Your task to perform on an android device: turn off improve location accuracy Image 0: 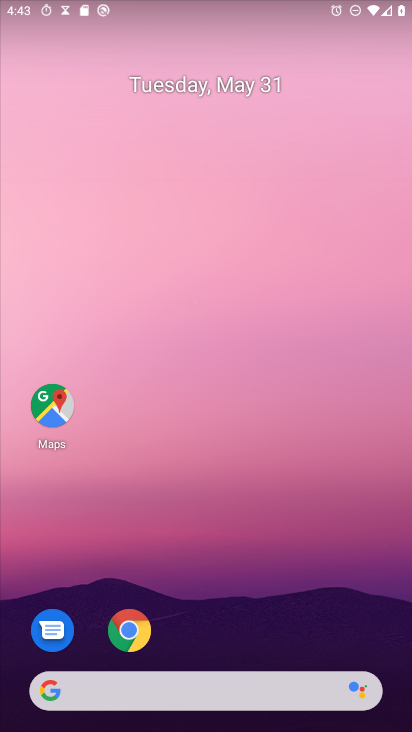
Step 0: drag from (294, 617) to (354, 3)
Your task to perform on an android device: turn off improve location accuracy Image 1: 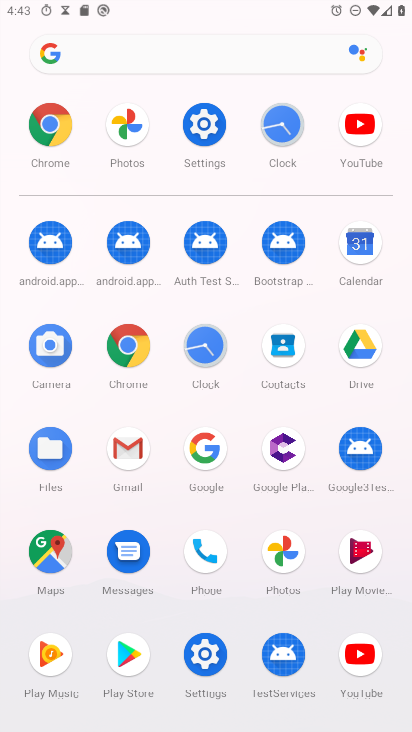
Step 1: click (205, 141)
Your task to perform on an android device: turn off improve location accuracy Image 2: 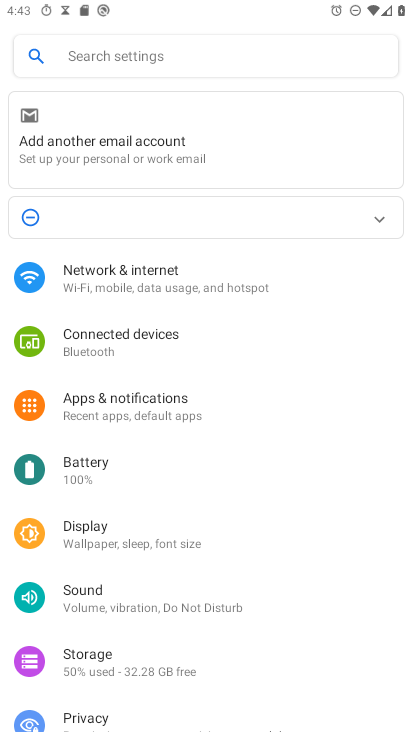
Step 2: drag from (279, 677) to (264, 310)
Your task to perform on an android device: turn off improve location accuracy Image 3: 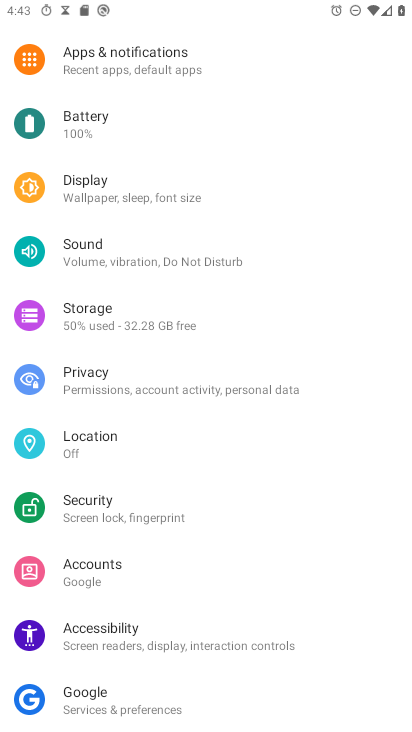
Step 3: click (129, 445)
Your task to perform on an android device: turn off improve location accuracy Image 4: 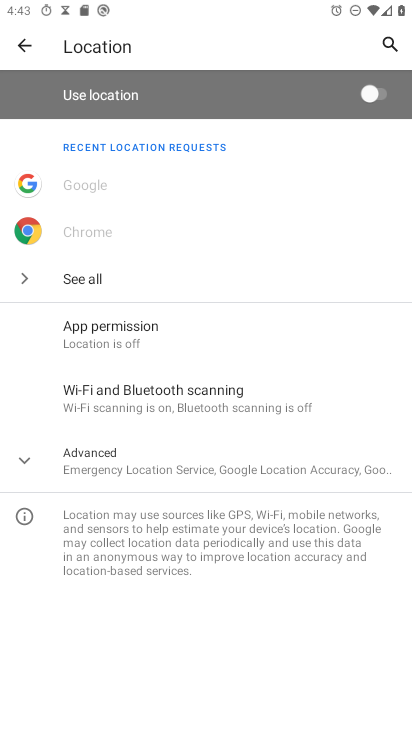
Step 4: click (236, 471)
Your task to perform on an android device: turn off improve location accuracy Image 5: 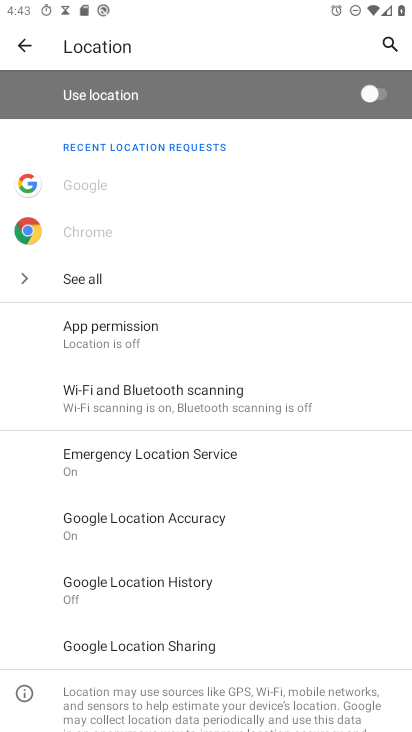
Step 5: click (222, 520)
Your task to perform on an android device: turn off improve location accuracy Image 6: 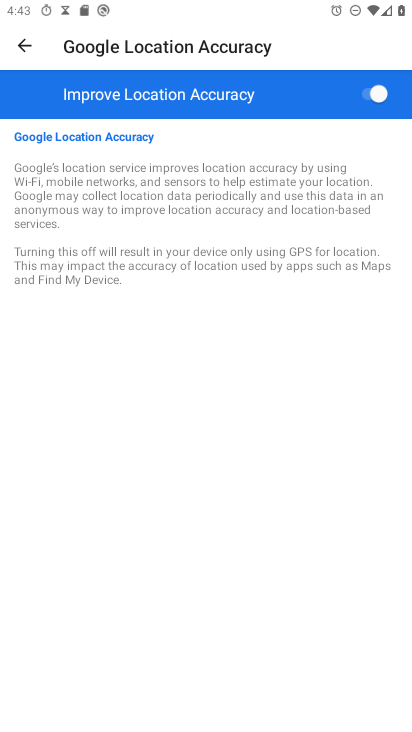
Step 6: click (370, 89)
Your task to perform on an android device: turn off improve location accuracy Image 7: 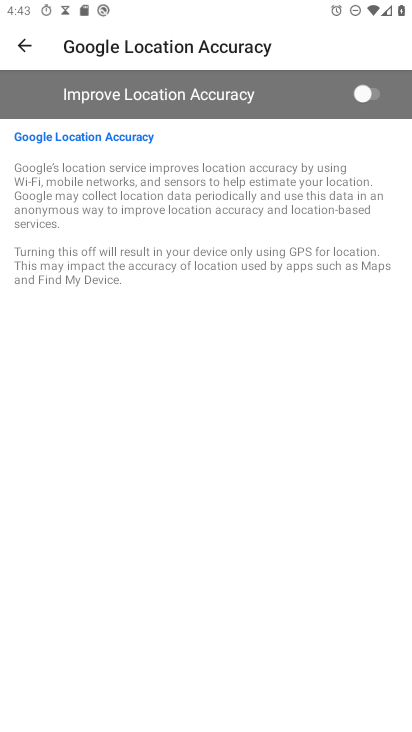
Step 7: task complete